Your task to perform on an android device: toggle notification dots Image 0: 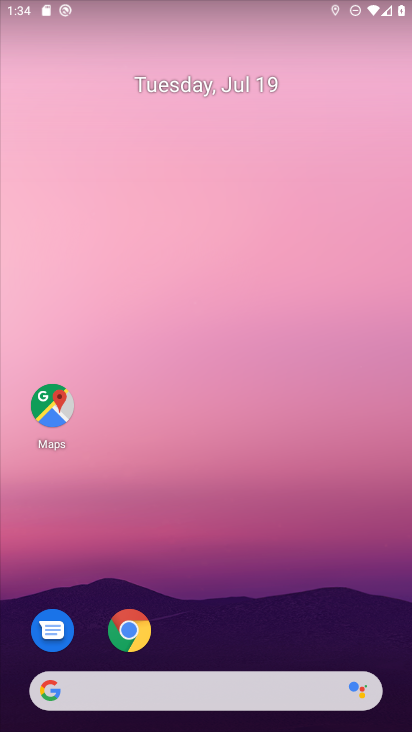
Step 0: press home button
Your task to perform on an android device: toggle notification dots Image 1: 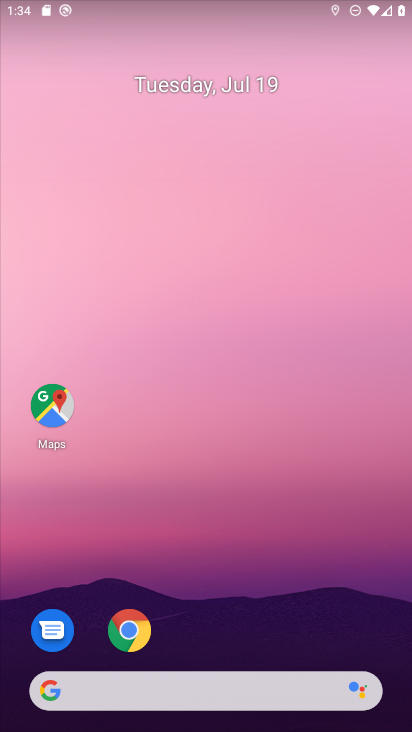
Step 1: drag from (190, 686) to (372, 125)
Your task to perform on an android device: toggle notification dots Image 2: 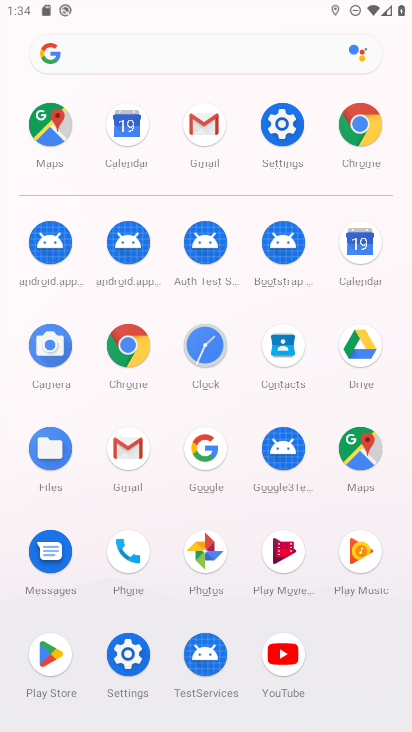
Step 2: click (284, 126)
Your task to perform on an android device: toggle notification dots Image 3: 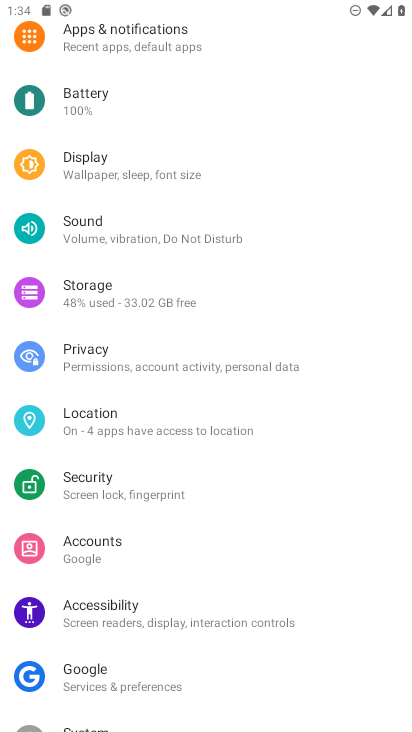
Step 3: click (160, 35)
Your task to perform on an android device: toggle notification dots Image 4: 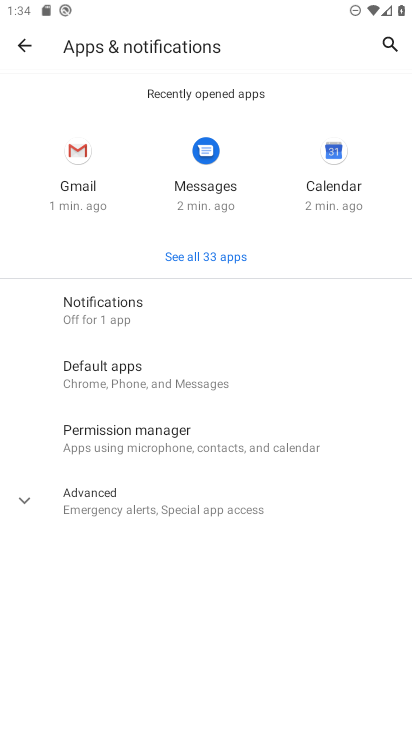
Step 4: click (112, 311)
Your task to perform on an android device: toggle notification dots Image 5: 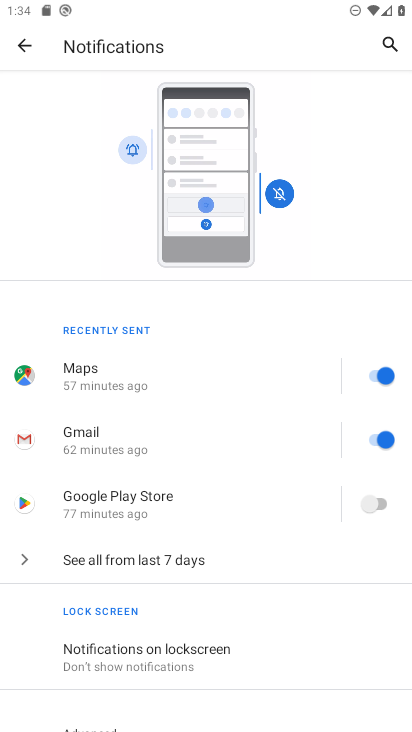
Step 5: drag from (243, 618) to (346, 121)
Your task to perform on an android device: toggle notification dots Image 6: 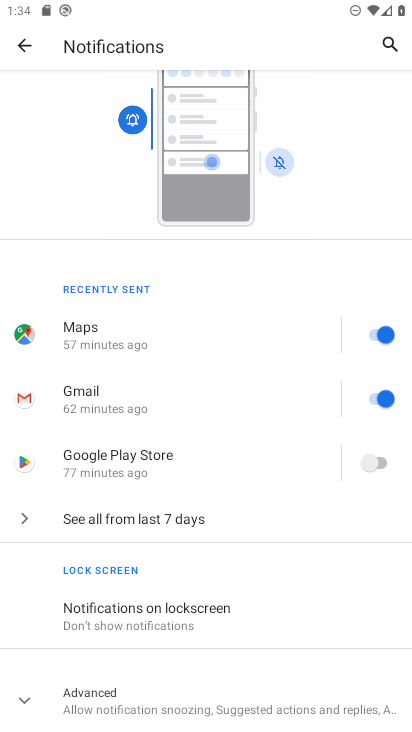
Step 6: click (97, 697)
Your task to perform on an android device: toggle notification dots Image 7: 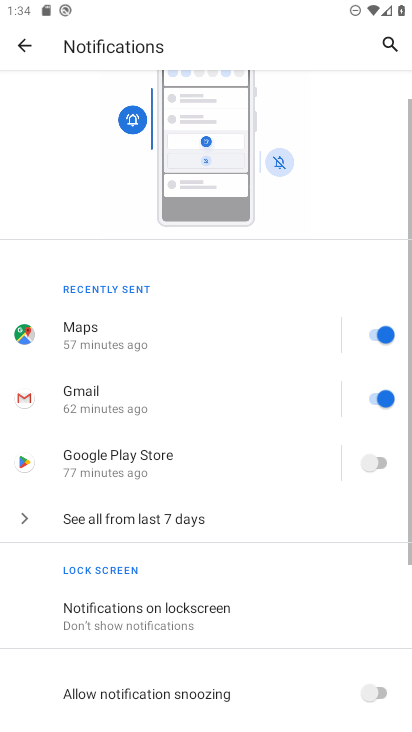
Step 7: drag from (228, 637) to (391, 16)
Your task to perform on an android device: toggle notification dots Image 8: 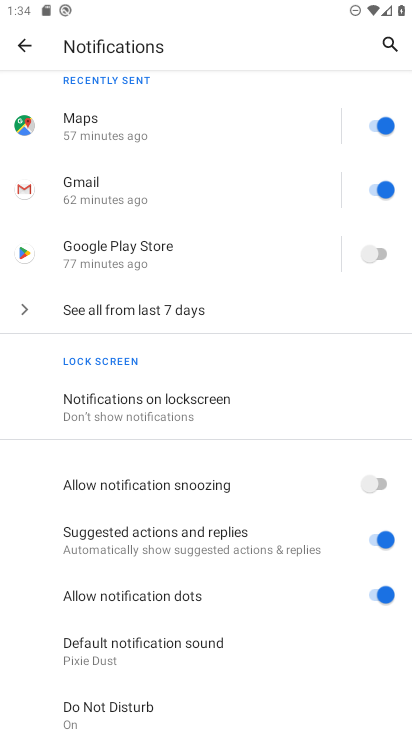
Step 8: click (373, 594)
Your task to perform on an android device: toggle notification dots Image 9: 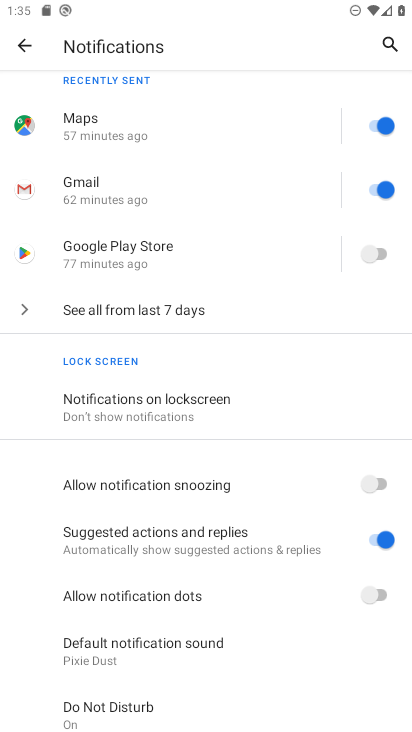
Step 9: task complete